Your task to perform on an android device: turn on notifications settings in the gmail app Image 0: 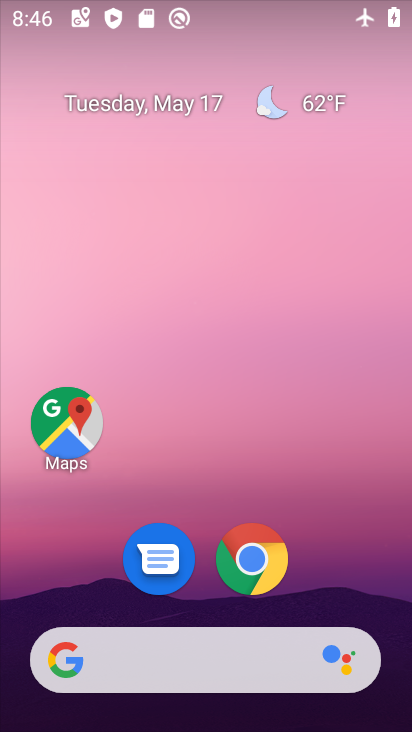
Step 0: drag from (212, 634) to (130, 253)
Your task to perform on an android device: turn on notifications settings in the gmail app Image 1: 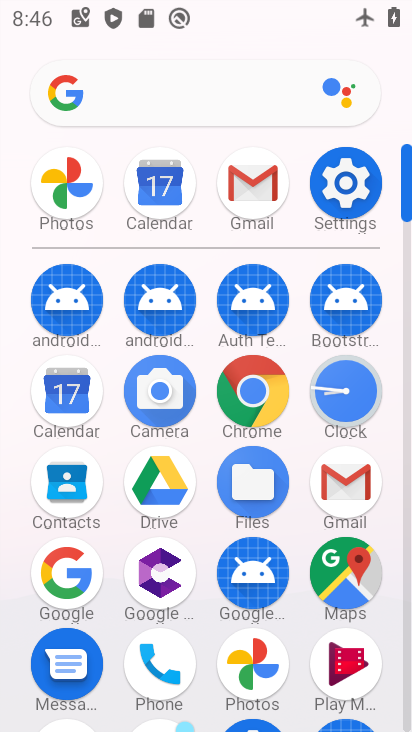
Step 1: click (267, 187)
Your task to perform on an android device: turn on notifications settings in the gmail app Image 2: 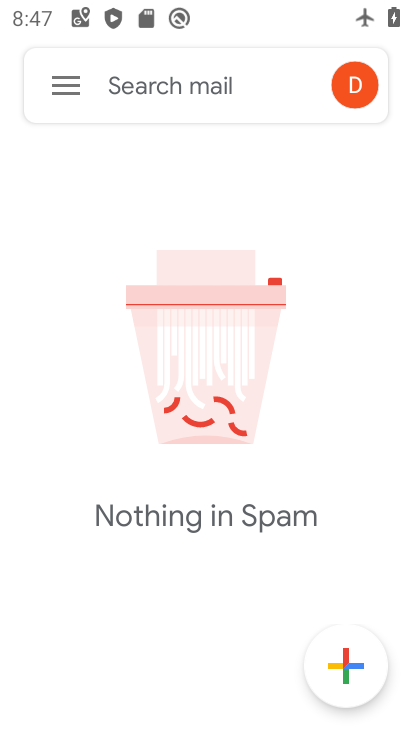
Step 2: click (35, 97)
Your task to perform on an android device: turn on notifications settings in the gmail app Image 3: 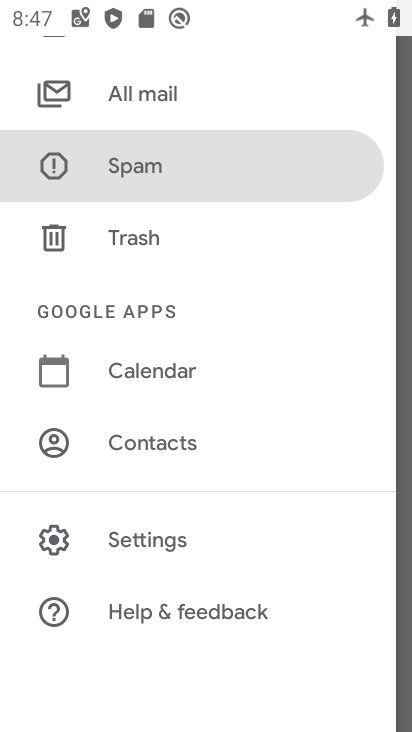
Step 3: click (173, 532)
Your task to perform on an android device: turn on notifications settings in the gmail app Image 4: 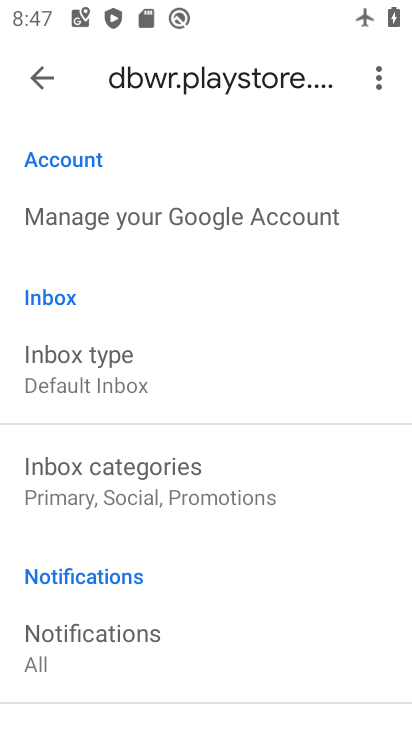
Step 4: drag from (164, 666) to (194, 276)
Your task to perform on an android device: turn on notifications settings in the gmail app Image 5: 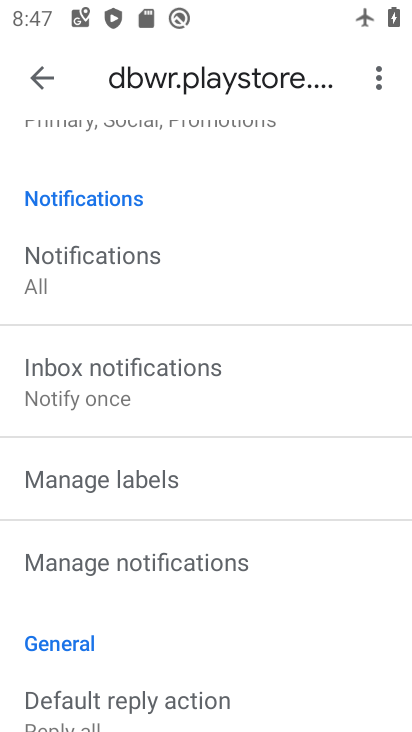
Step 5: click (151, 557)
Your task to perform on an android device: turn on notifications settings in the gmail app Image 6: 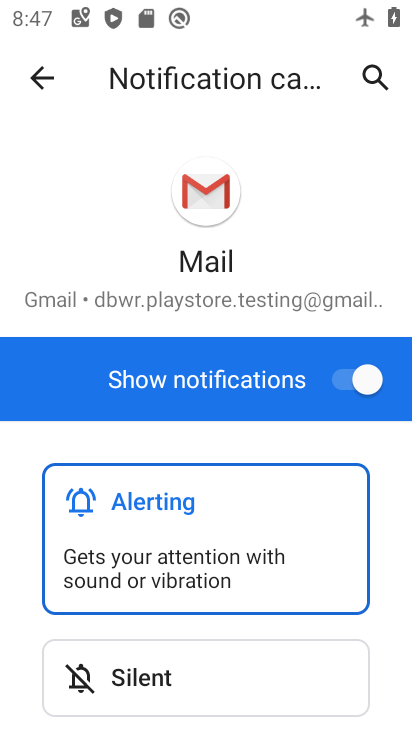
Step 6: task complete